Your task to perform on an android device: When is my next meeting? Image 0: 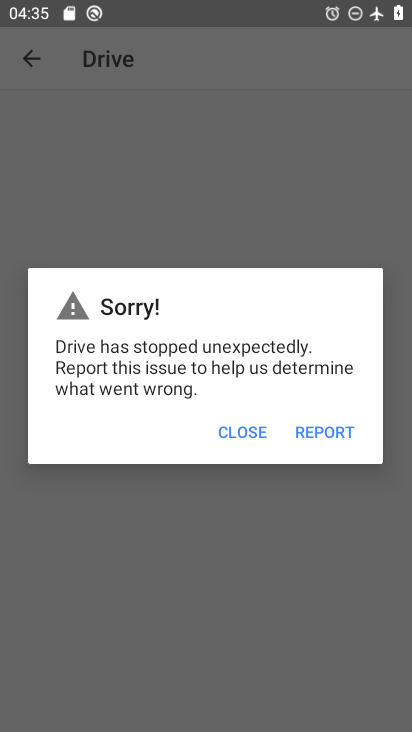
Step 0: press home button
Your task to perform on an android device: When is my next meeting? Image 1: 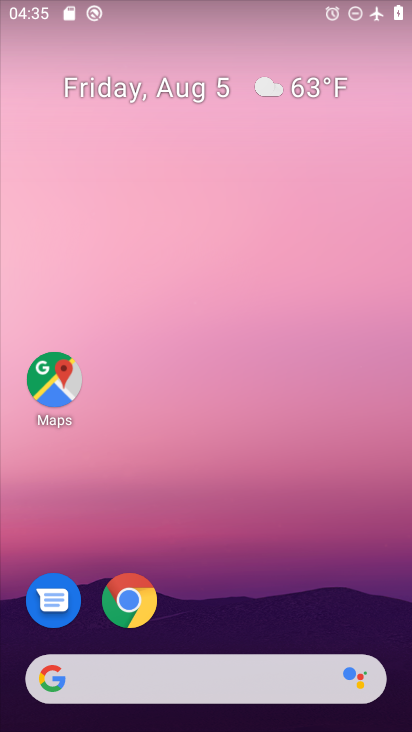
Step 1: drag from (226, 675) to (382, 287)
Your task to perform on an android device: When is my next meeting? Image 2: 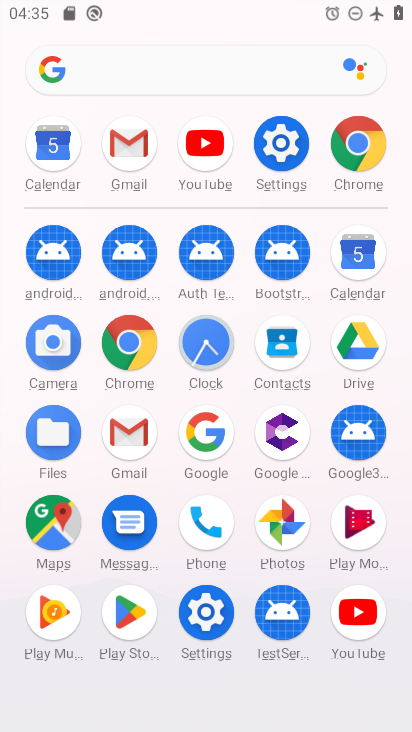
Step 2: click (361, 254)
Your task to perform on an android device: When is my next meeting? Image 3: 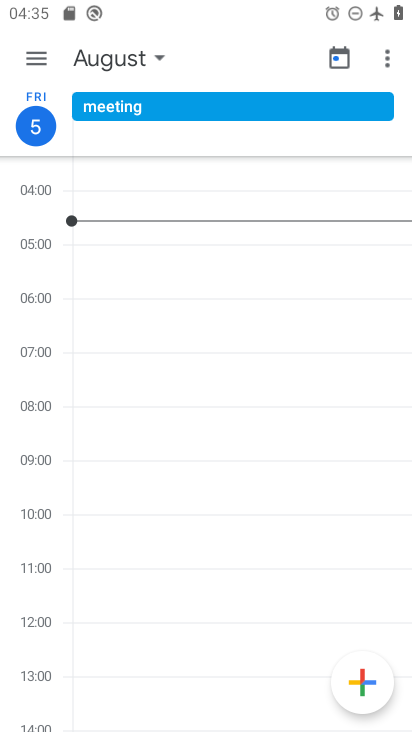
Step 3: click (340, 58)
Your task to perform on an android device: When is my next meeting? Image 4: 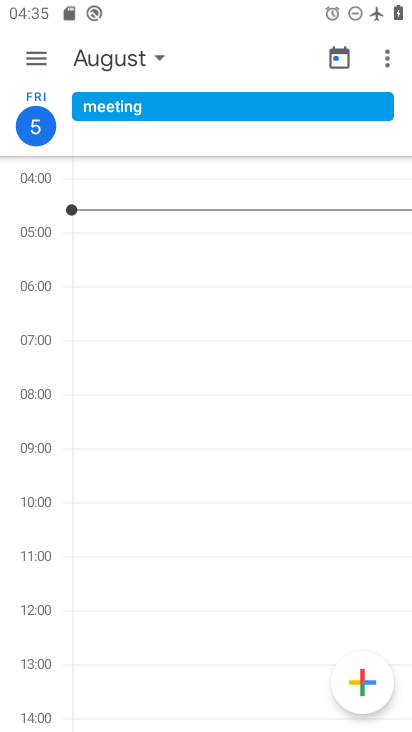
Step 4: click (158, 55)
Your task to perform on an android device: When is my next meeting? Image 5: 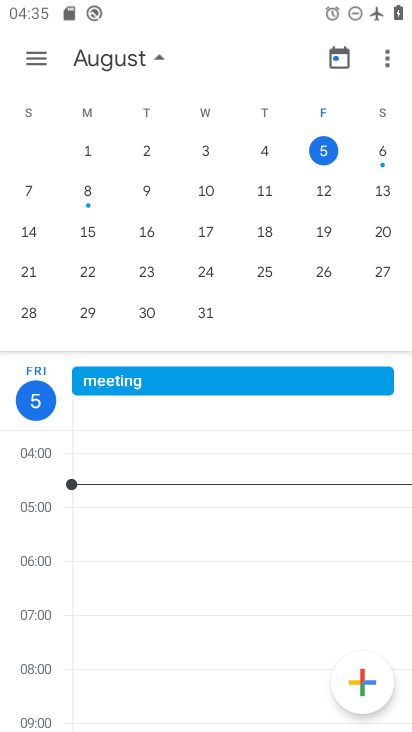
Step 5: click (386, 154)
Your task to perform on an android device: When is my next meeting? Image 6: 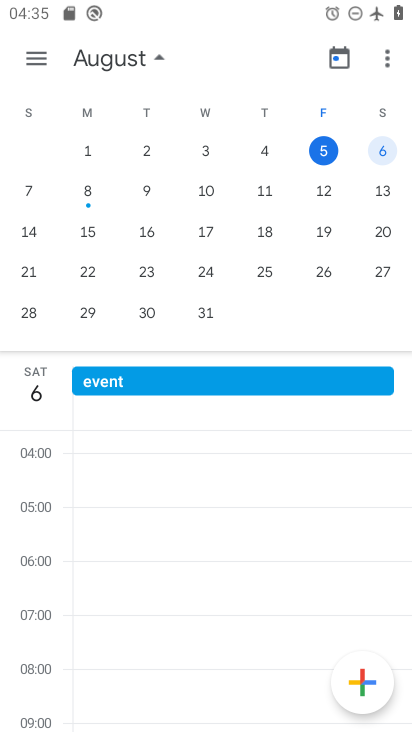
Step 6: task complete